Your task to perform on an android device: Go to Google Image 0: 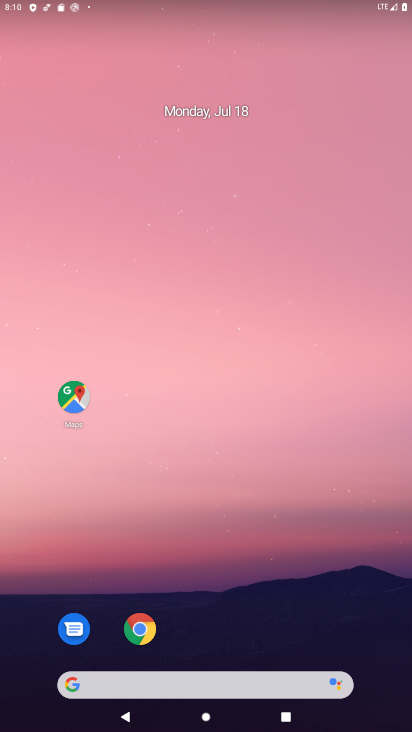
Step 0: click (76, 683)
Your task to perform on an android device: Go to Google Image 1: 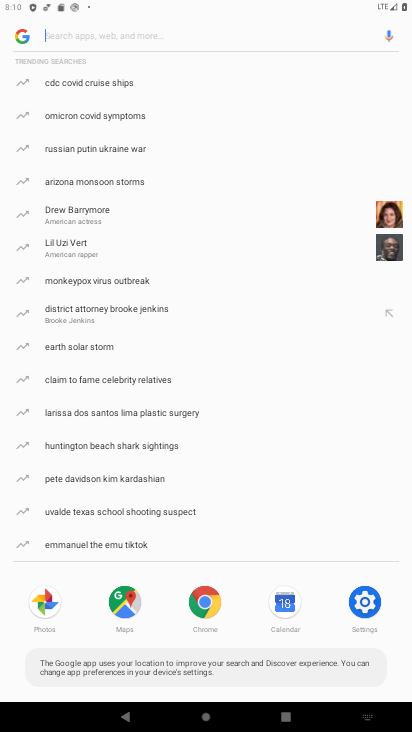
Step 1: click (31, 34)
Your task to perform on an android device: Go to Google Image 2: 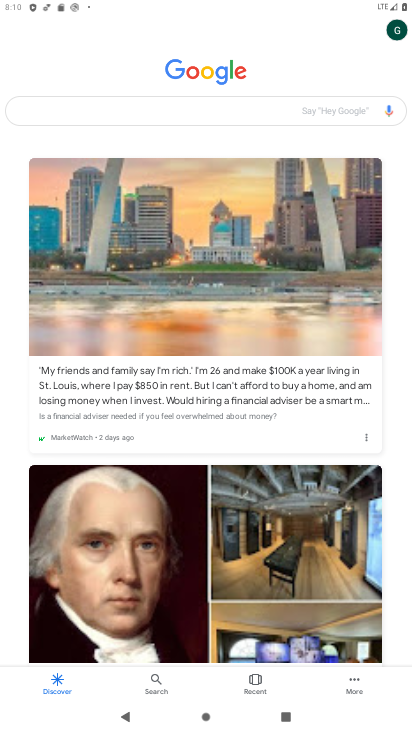
Step 2: task complete